Your task to perform on an android device: toggle airplane mode Image 0: 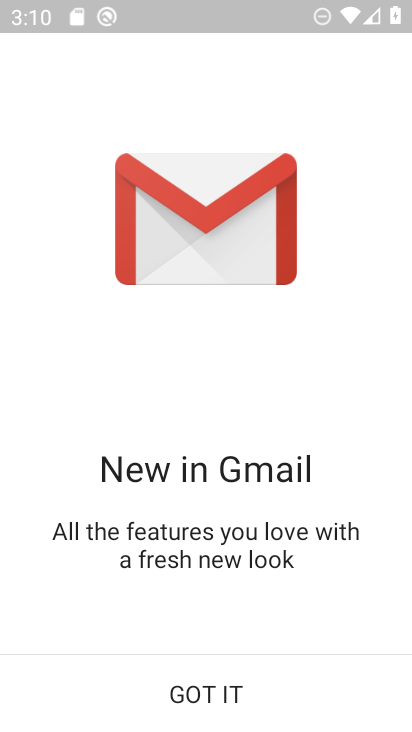
Step 0: press home button
Your task to perform on an android device: toggle airplane mode Image 1: 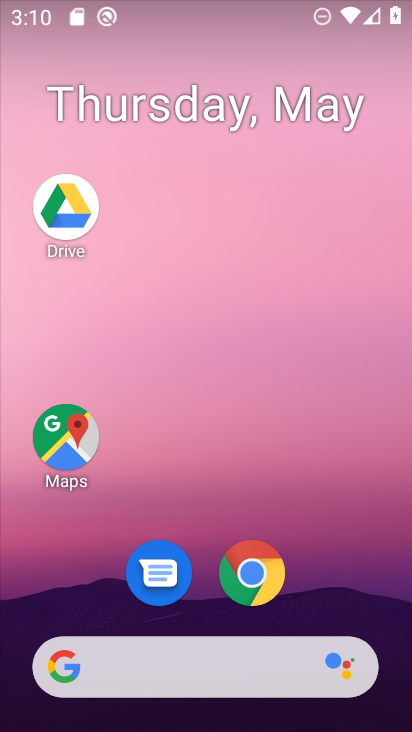
Step 1: drag from (343, 529) to (300, 154)
Your task to perform on an android device: toggle airplane mode Image 2: 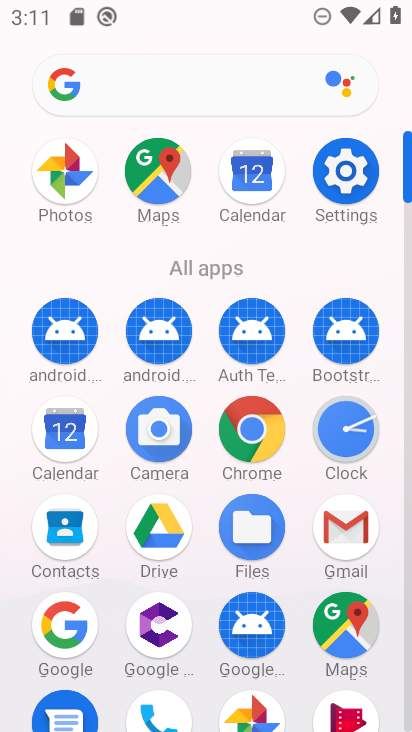
Step 2: click (332, 174)
Your task to perform on an android device: toggle airplane mode Image 3: 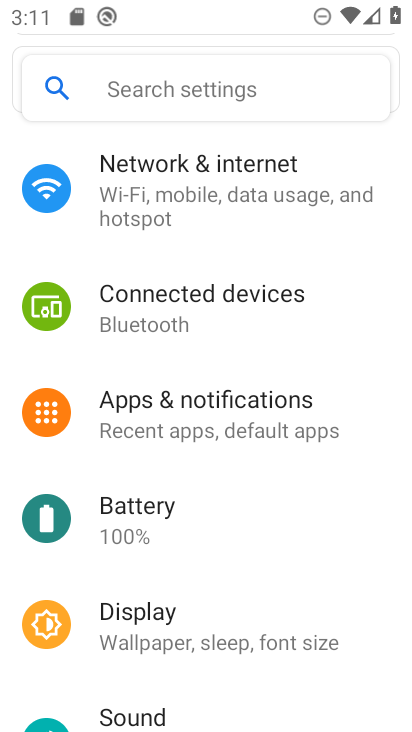
Step 3: click (189, 175)
Your task to perform on an android device: toggle airplane mode Image 4: 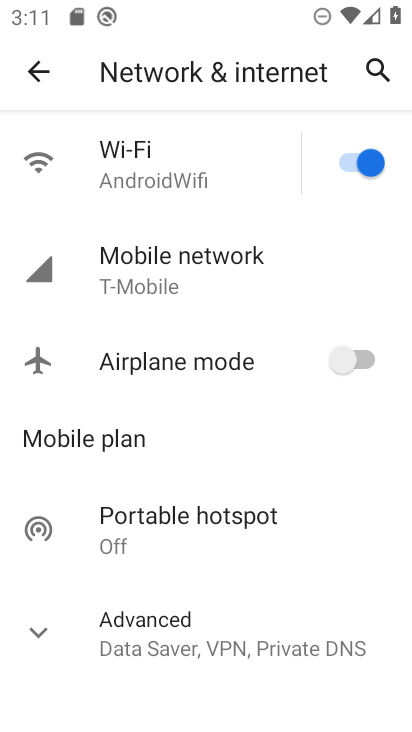
Step 4: click (350, 357)
Your task to perform on an android device: toggle airplane mode Image 5: 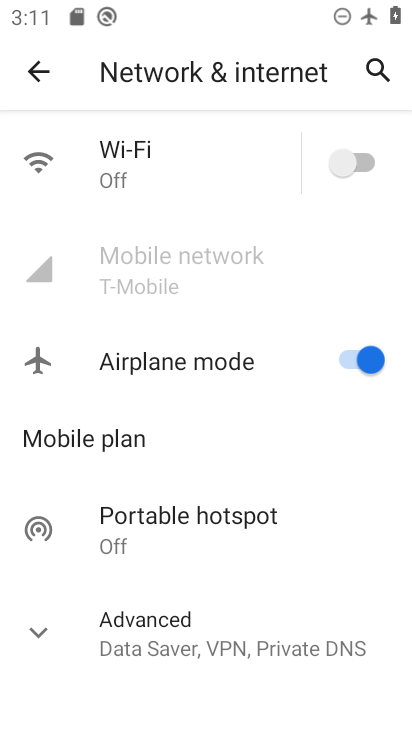
Step 5: task complete